Your task to perform on an android device: add a contact Image 0: 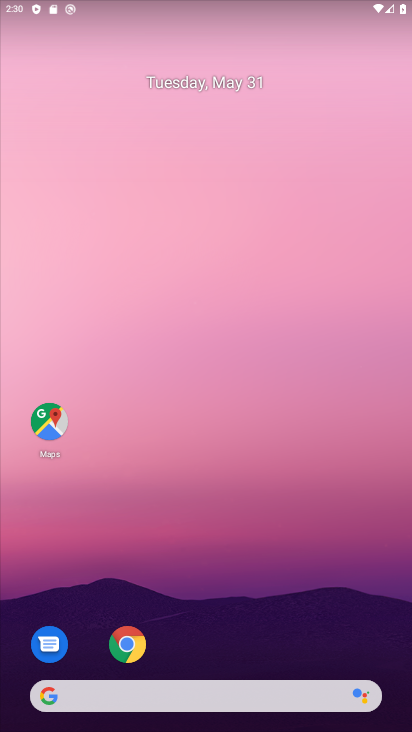
Step 0: drag from (283, 649) to (268, 40)
Your task to perform on an android device: add a contact Image 1: 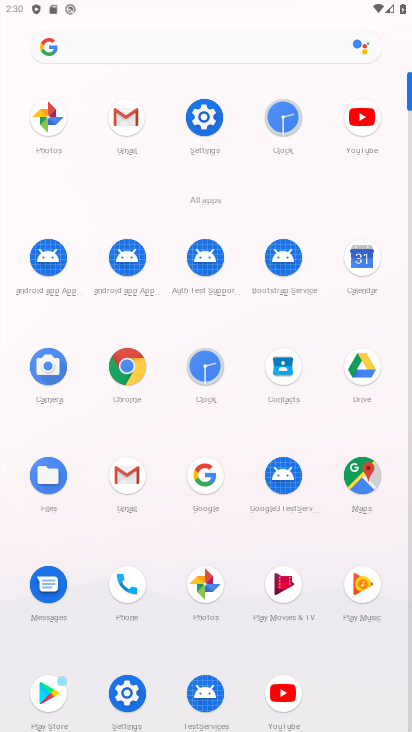
Step 1: click (281, 365)
Your task to perform on an android device: add a contact Image 2: 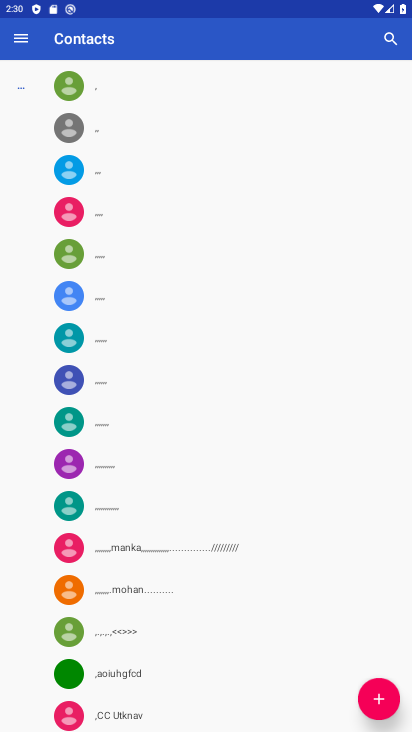
Step 2: click (369, 690)
Your task to perform on an android device: add a contact Image 3: 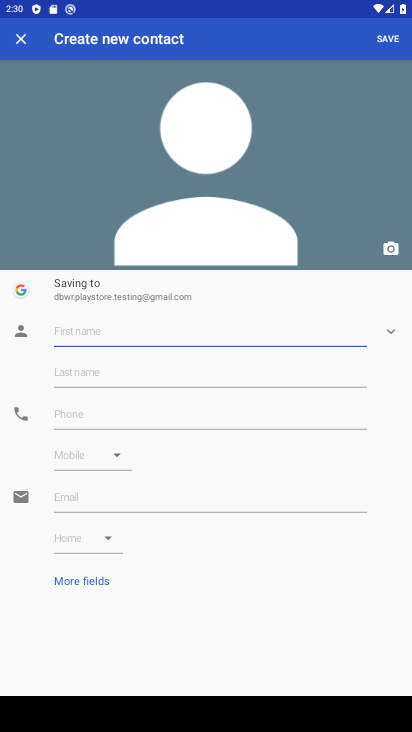
Step 3: click (175, 330)
Your task to perform on an android device: add a contact Image 4: 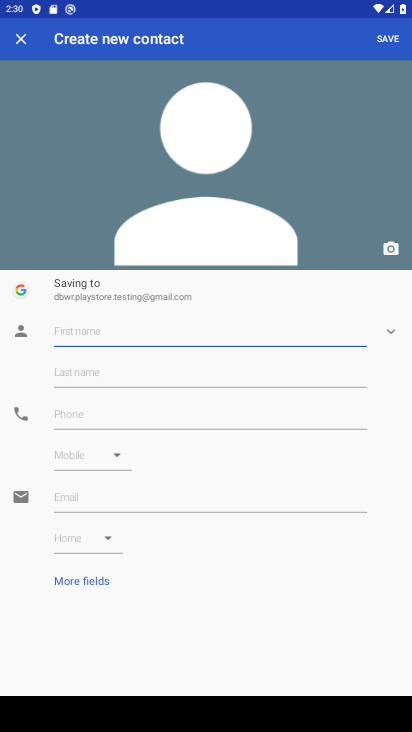
Step 4: type "gfgfgfgfgfgf"
Your task to perform on an android device: add a contact Image 5: 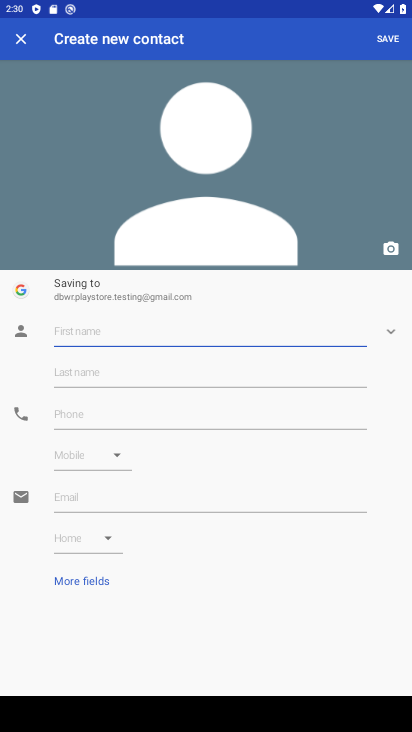
Step 5: click (128, 334)
Your task to perform on an android device: add a contact Image 6: 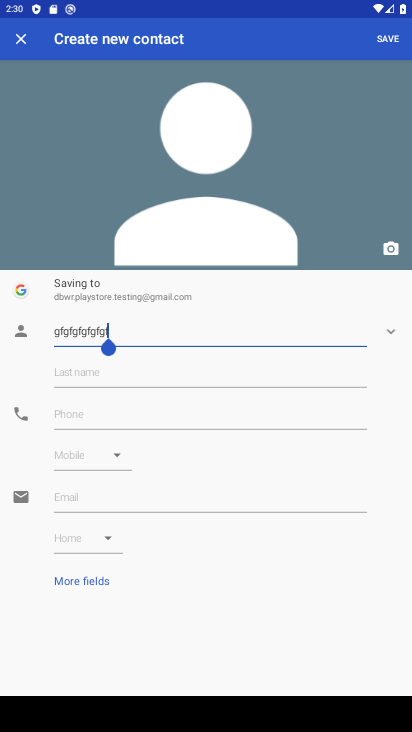
Step 6: click (76, 410)
Your task to perform on an android device: add a contact Image 7: 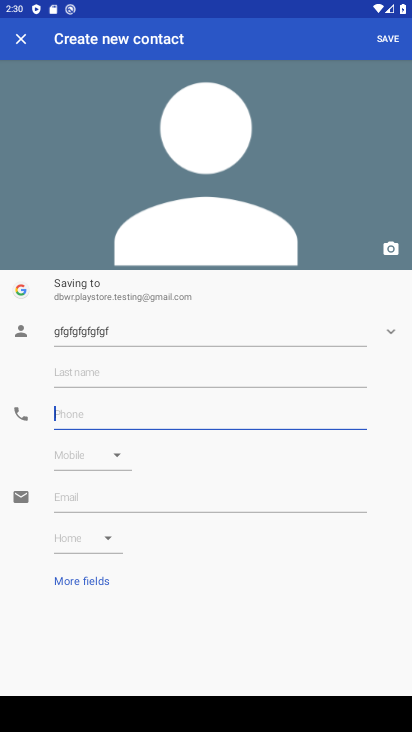
Step 7: type "44356657"
Your task to perform on an android device: add a contact Image 8: 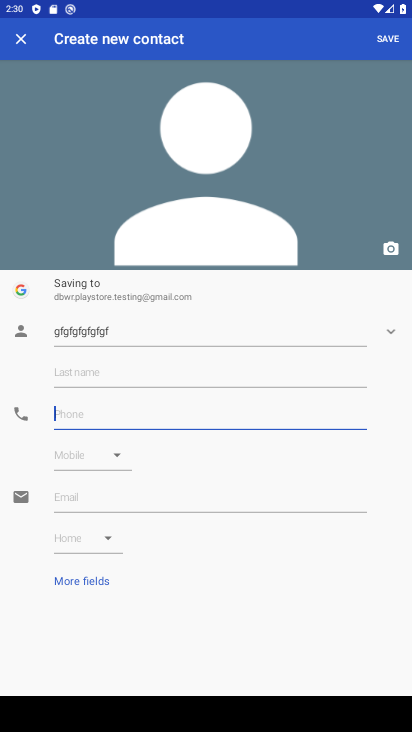
Step 8: click (113, 418)
Your task to perform on an android device: add a contact Image 9: 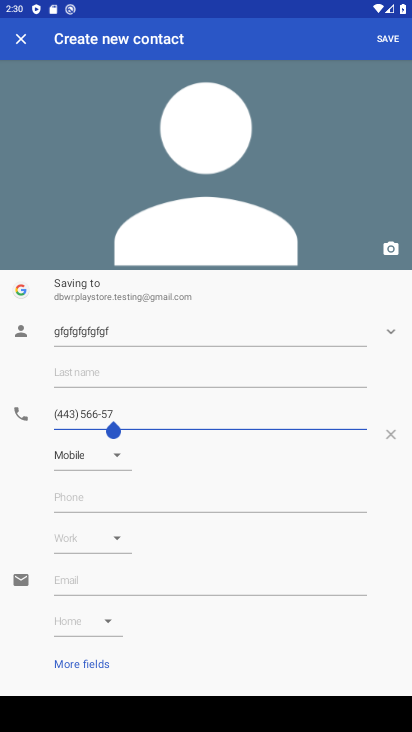
Step 9: click (385, 34)
Your task to perform on an android device: add a contact Image 10: 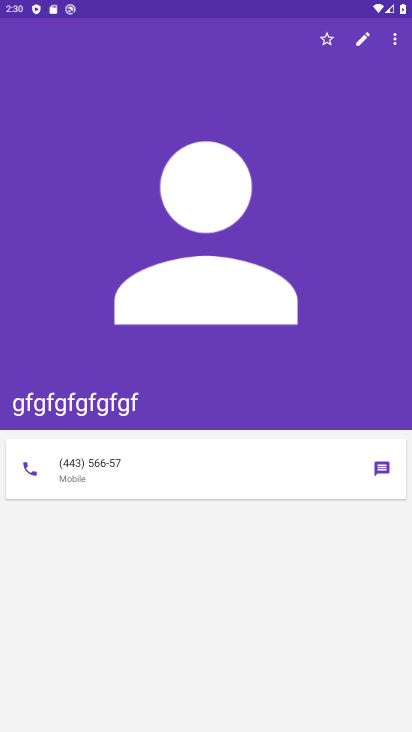
Step 10: task complete